Your task to perform on an android device: uninstall "Walmart Shopping & Grocery" Image 0: 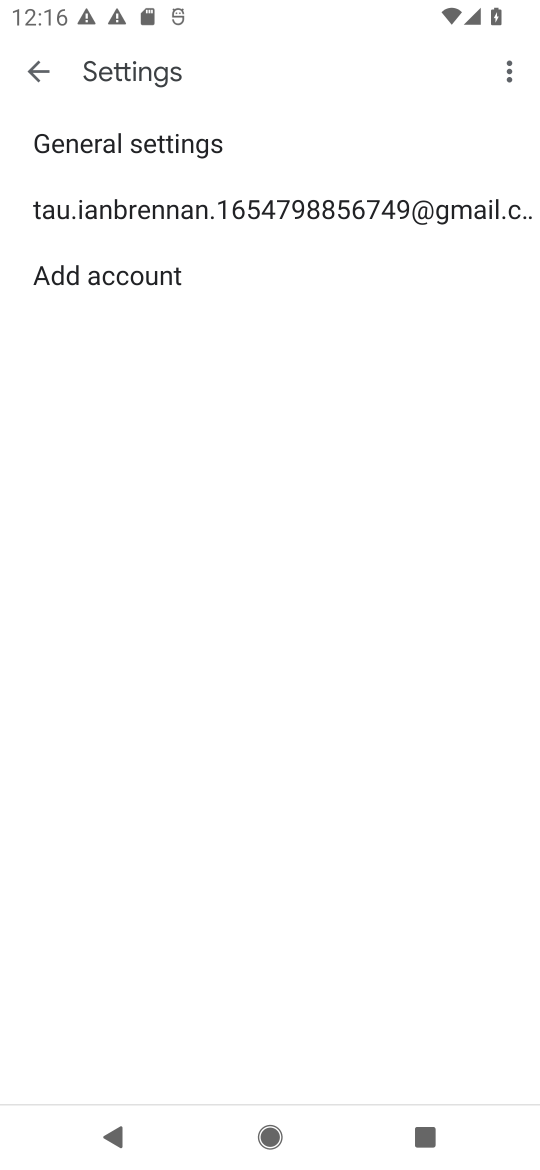
Step 0: press home button
Your task to perform on an android device: uninstall "Walmart Shopping & Grocery" Image 1: 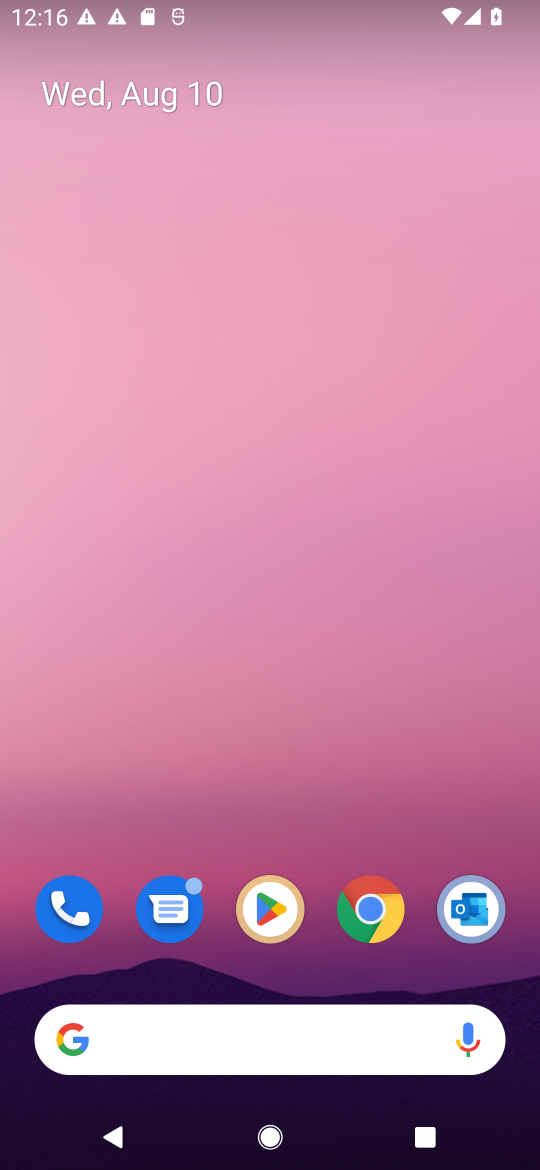
Step 1: drag from (229, 896) to (289, 109)
Your task to perform on an android device: uninstall "Walmart Shopping & Grocery" Image 2: 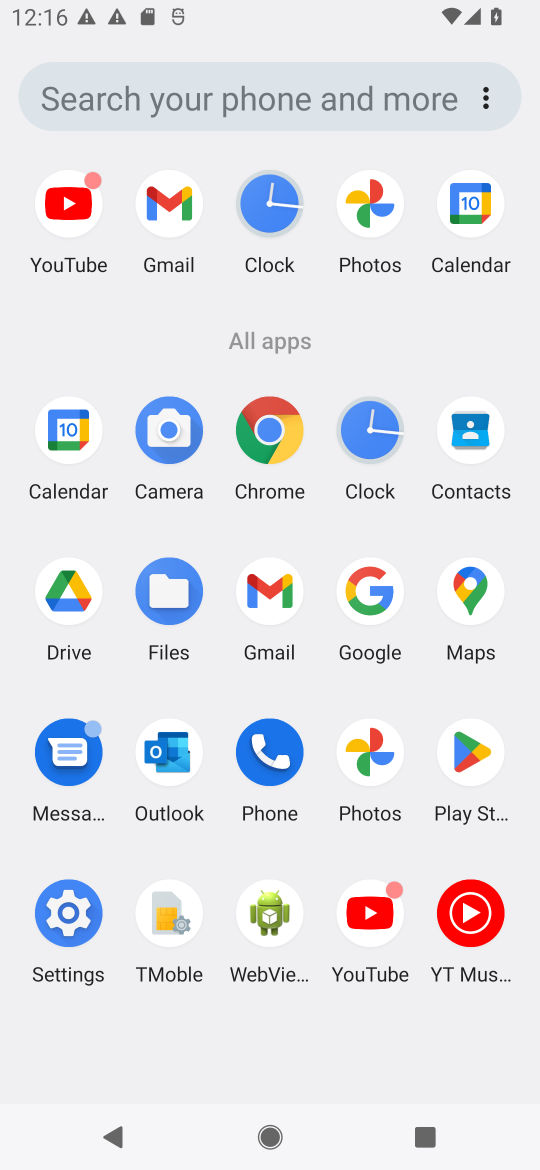
Step 2: click (473, 731)
Your task to perform on an android device: uninstall "Walmart Shopping & Grocery" Image 3: 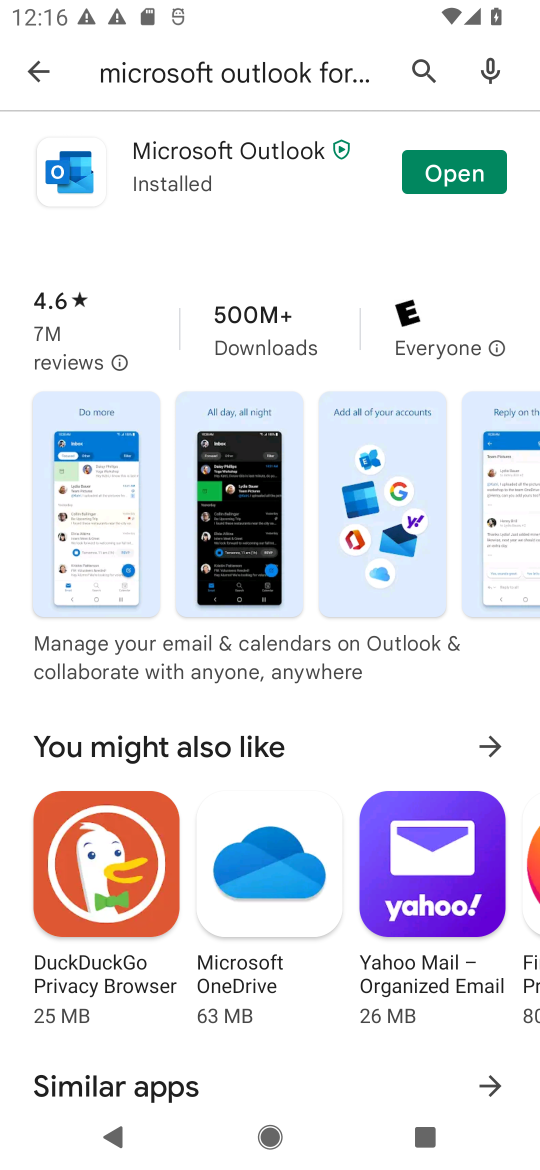
Step 3: click (30, 61)
Your task to perform on an android device: uninstall "Walmart Shopping & Grocery" Image 4: 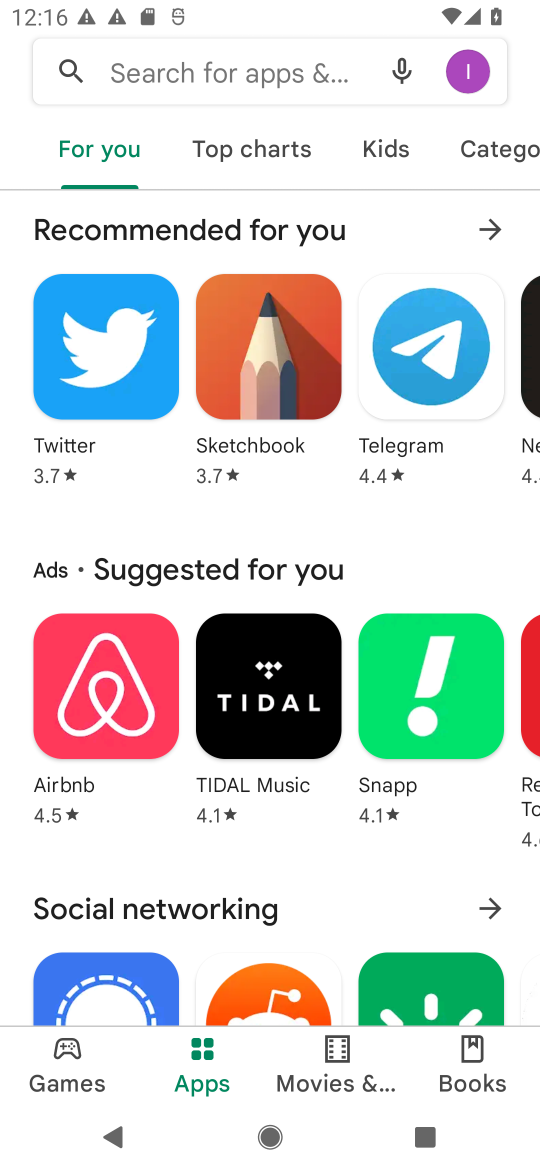
Step 4: click (105, 61)
Your task to perform on an android device: uninstall "Walmart Shopping & Grocery" Image 5: 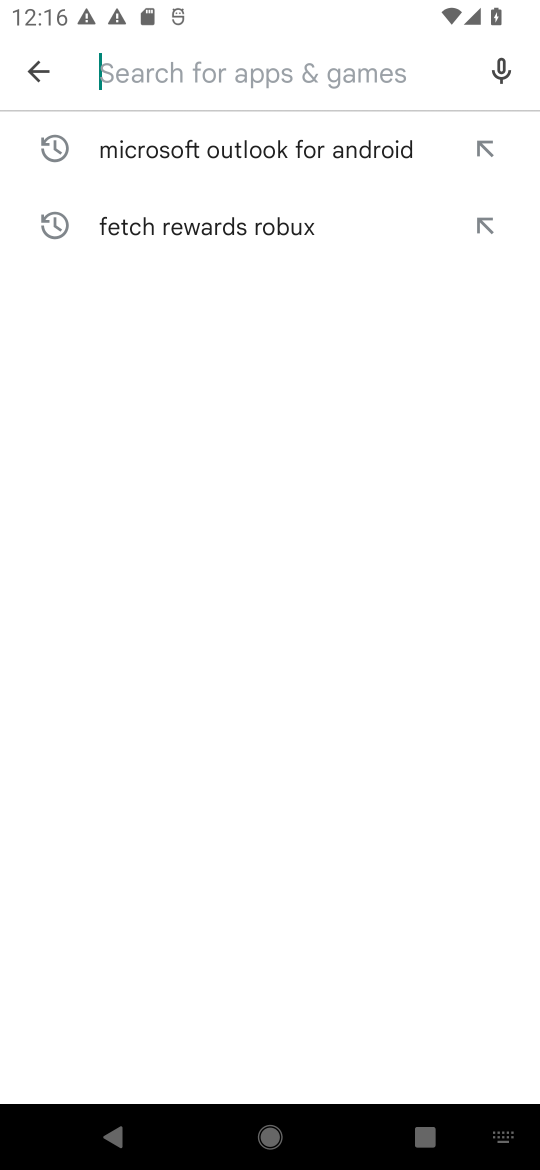
Step 5: click (278, 51)
Your task to perform on an android device: uninstall "Walmart Shopping & Grocery" Image 6: 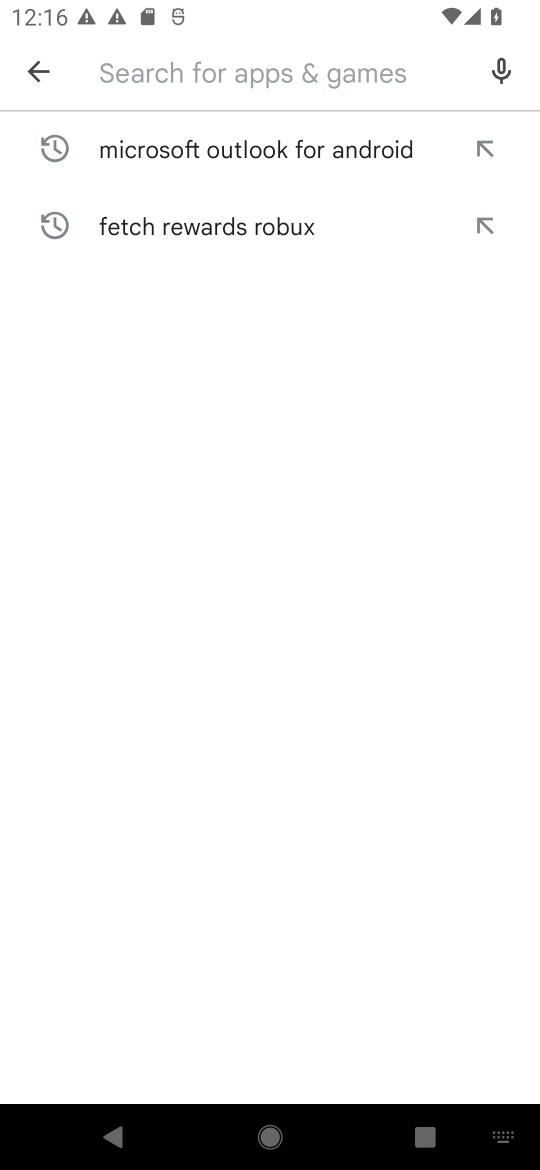
Step 6: type "Walmart Shopping & Grocery"
Your task to perform on an android device: uninstall "Walmart Shopping & Grocery" Image 7: 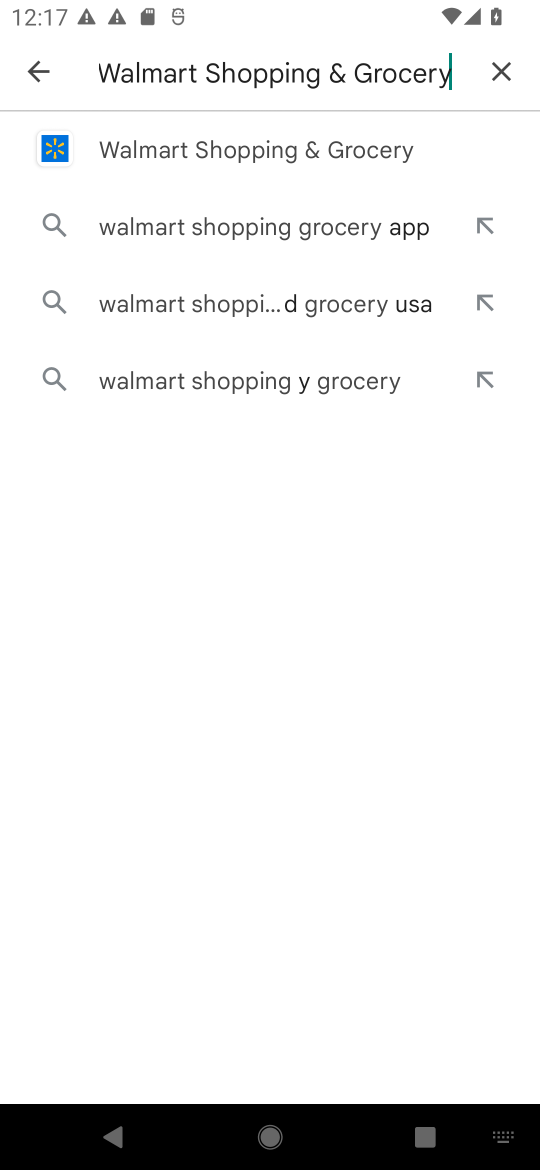
Step 7: click (278, 137)
Your task to perform on an android device: uninstall "Walmart Shopping & Grocery" Image 8: 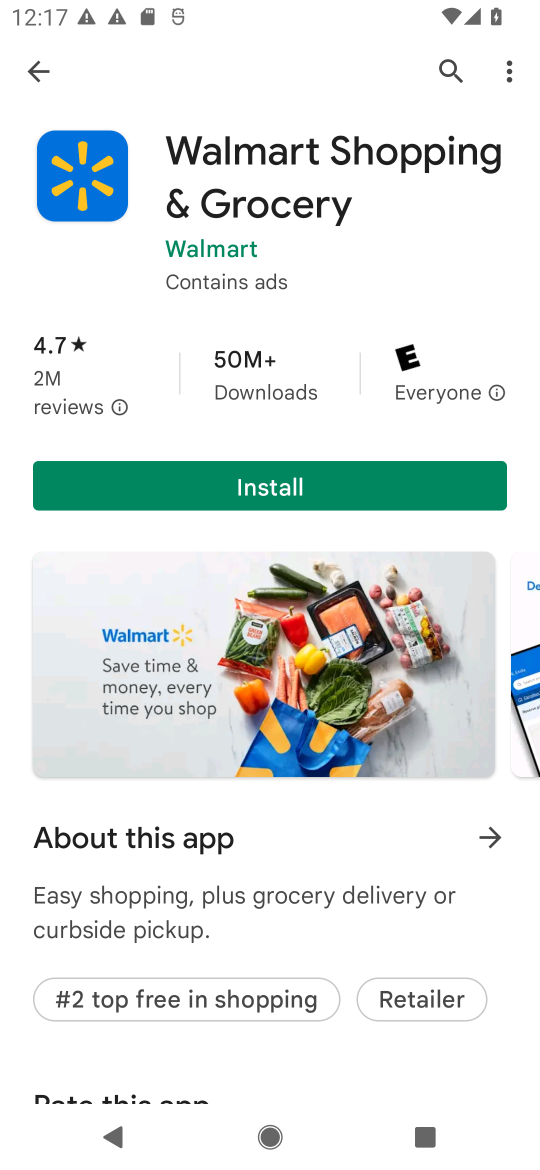
Step 8: click (282, 488)
Your task to perform on an android device: uninstall "Walmart Shopping & Grocery" Image 9: 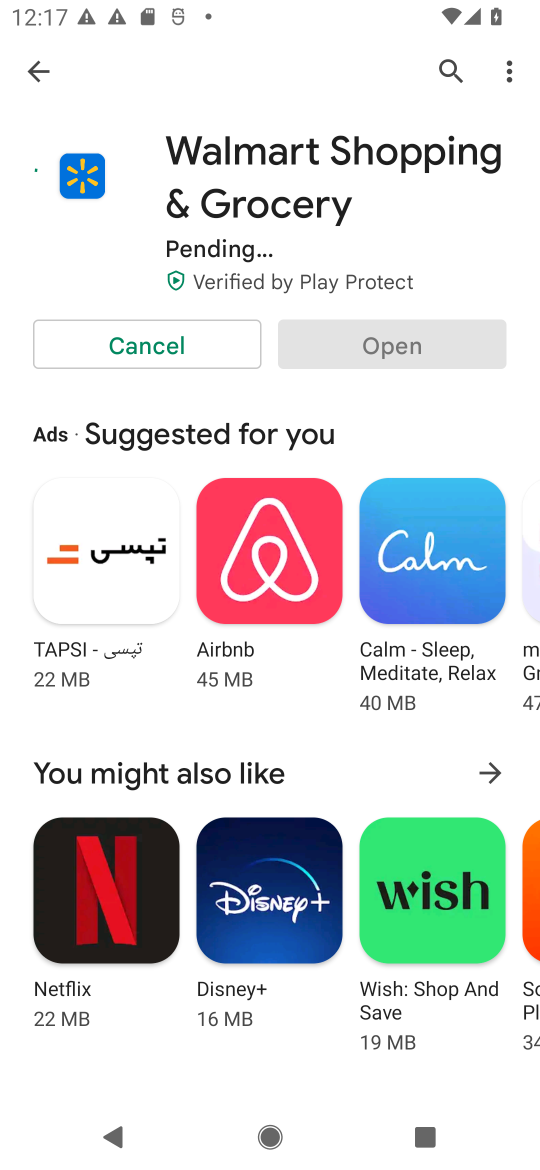
Step 9: click (197, 337)
Your task to perform on an android device: uninstall "Walmart Shopping & Grocery" Image 10: 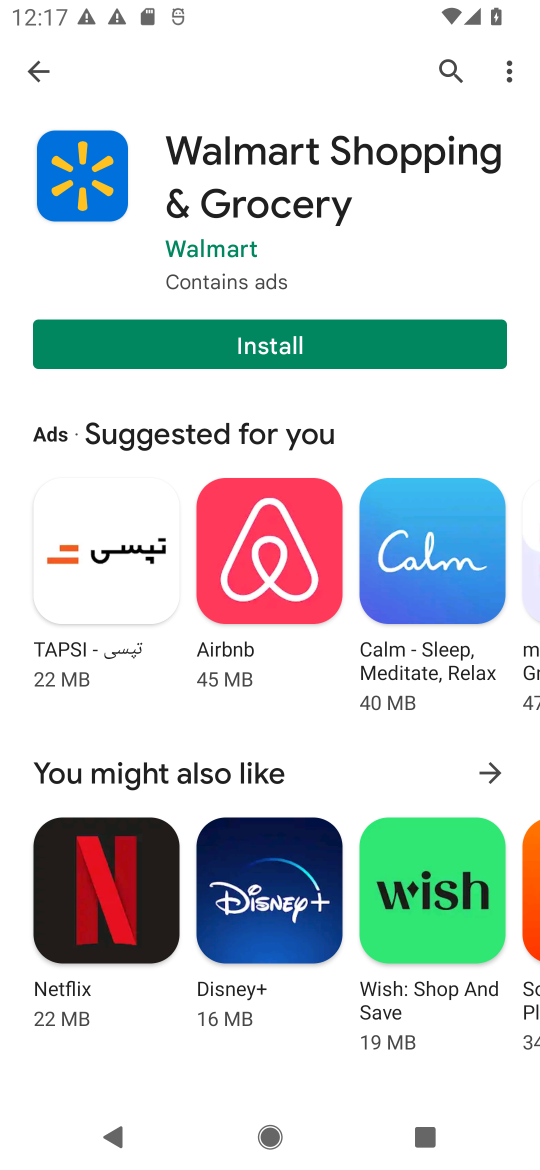
Step 10: task complete